Your task to perform on an android device: Show me popular videos on Youtube Image 0: 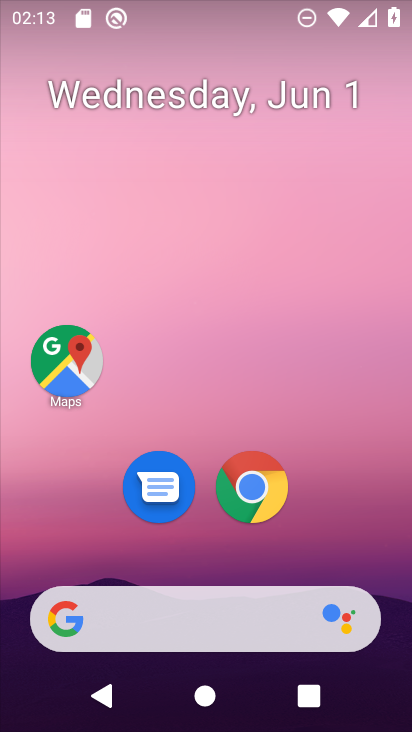
Step 0: drag from (331, 525) to (301, 121)
Your task to perform on an android device: Show me popular videos on Youtube Image 1: 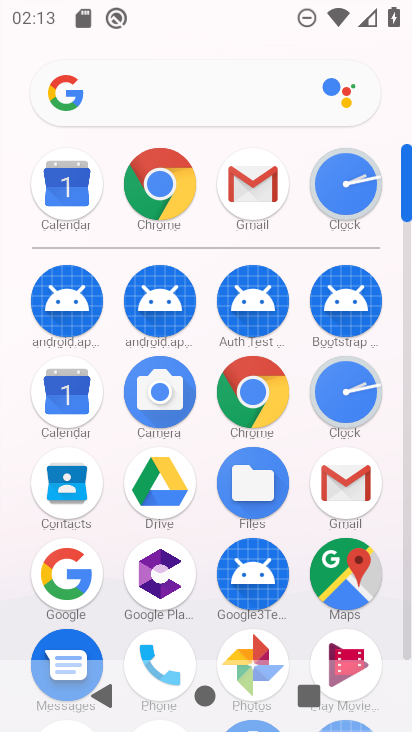
Step 1: drag from (202, 545) to (181, 360)
Your task to perform on an android device: Show me popular videos on Youtube Image 2: 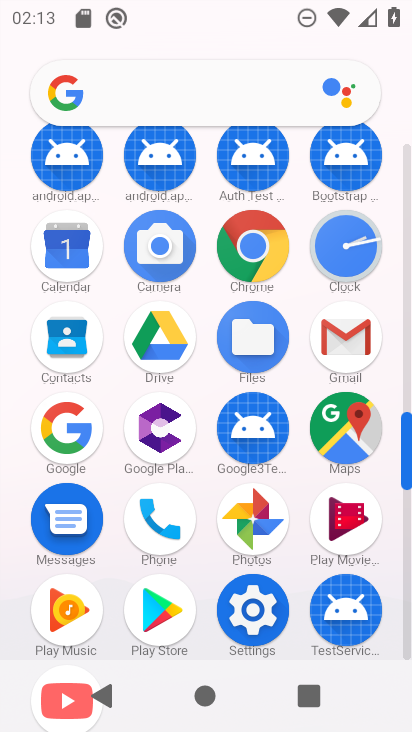
Step 2: drag from (102, 598) to (151, 384)
Your task to perform on an android device: Show me popular videos on Youtube Image 3: 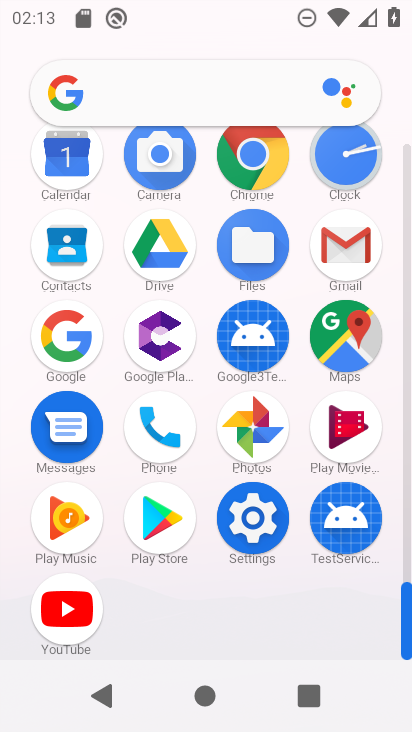
Step 3: click (77, 607)
Your task to perform on an android device: Show me popular videos on Youtube Image 4: 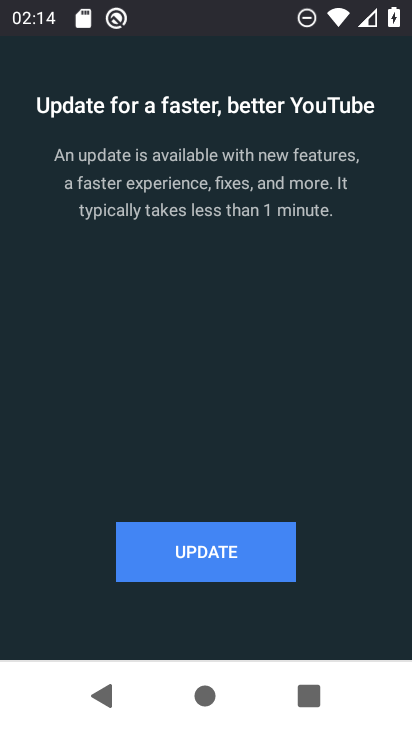
Step 4: task complete